Your task to perform on an android device: Search for sushi restaurants on Maps Image 0: 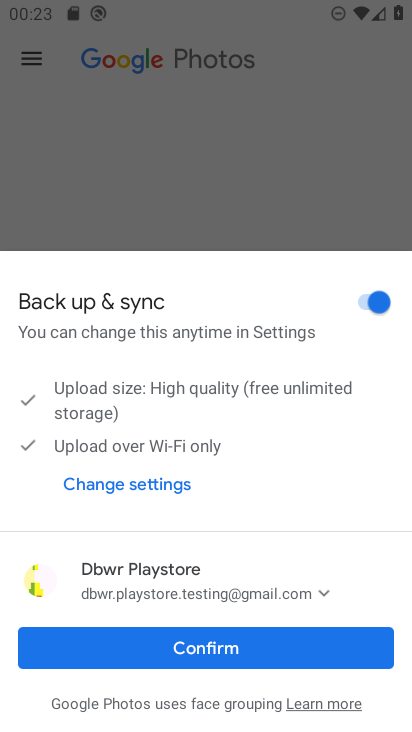
Step 0: press home button
Your task to perform on an android device: Search for sushi restaurants on Maps Image 1: 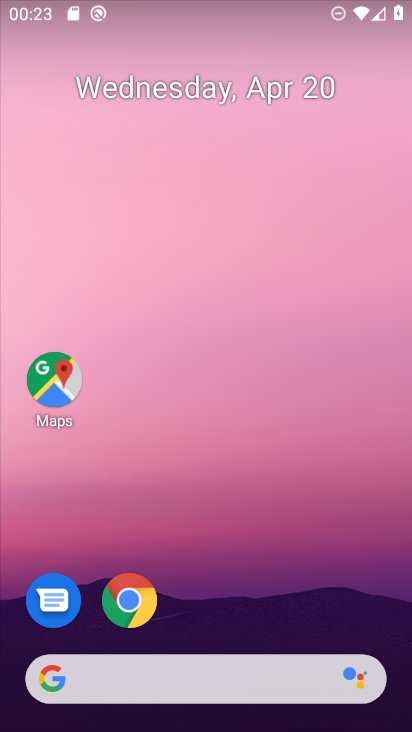
Step 1: click (39, 362)
Your task to perform on an android device: Search for sushi restaurants on Maps Image 2: 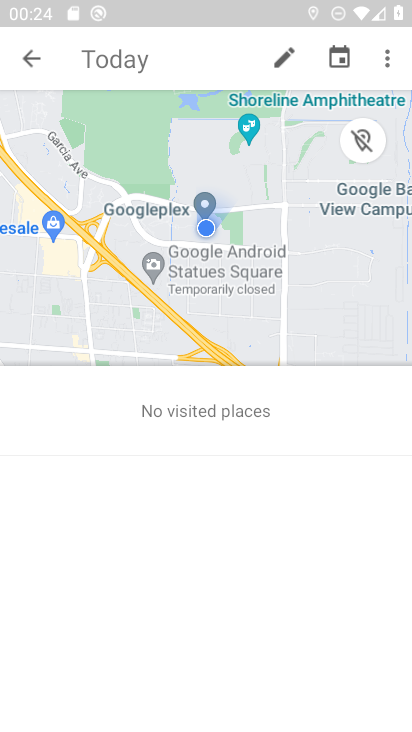
Step 2: click (133, 53)
Your task to perform on an android device: Search for sushi restaurants on Maps Image 3: 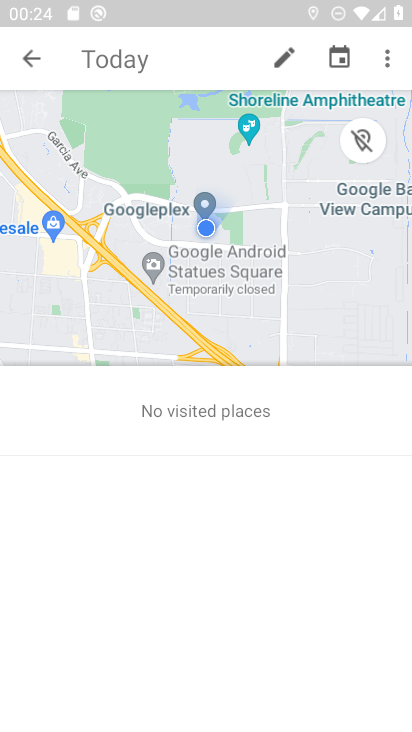
Step 3: click (38, 52)
Your task to perform on an android device: Search for sushi restaurants on Maps Image 4: 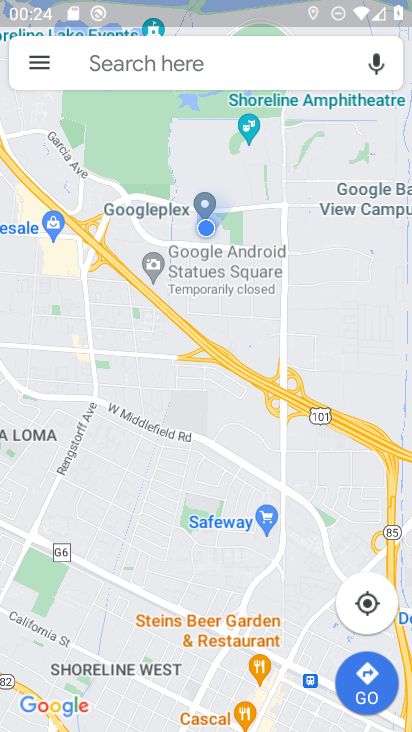
Step 4: click (140, 67)
Your task to perform on an android device: Search for sushi restaurants on Maps Image 5: 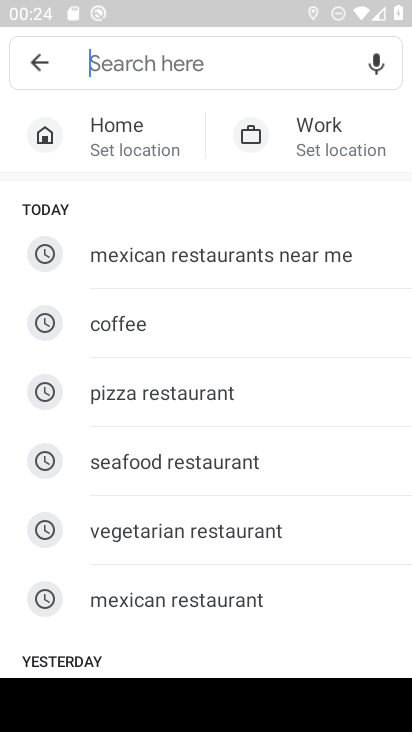
Step 5: type "sushi restaurants"
Your task to perform on an android device: Search for sushi restaurants on Maps Image 6: 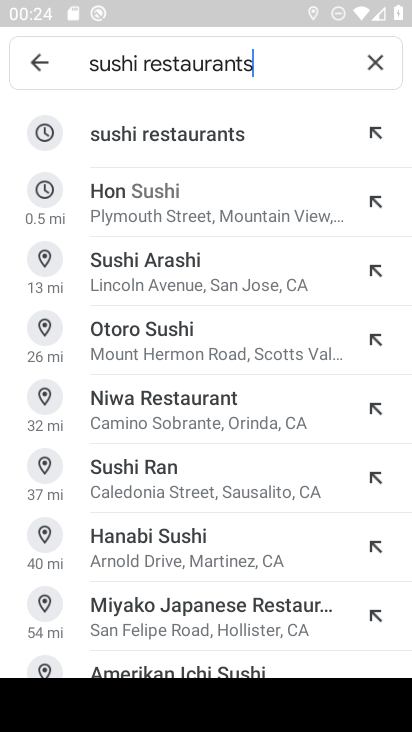
Step 6: click (190, 131)
Your task to perform on an android device: Search for sushi restaurants on Maps Image 7: 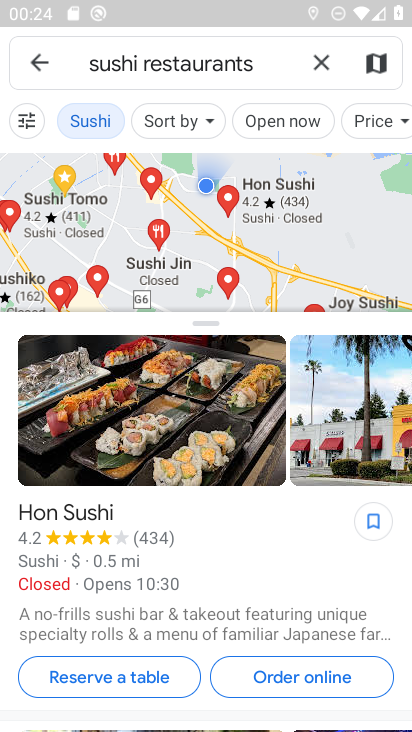
Step 7: task complete